Your task to perform on an android device: Open Google Chrome Image 0: 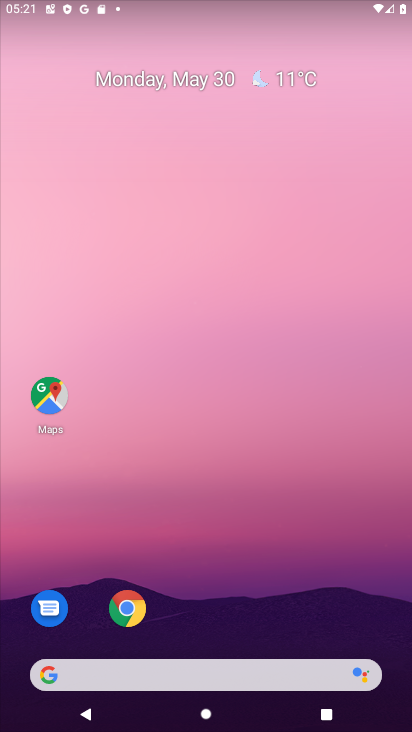
Step 0: drag from (237, 640) to (235, 319)
Your task to perform on an android device: Open Google Chrome Image 1: 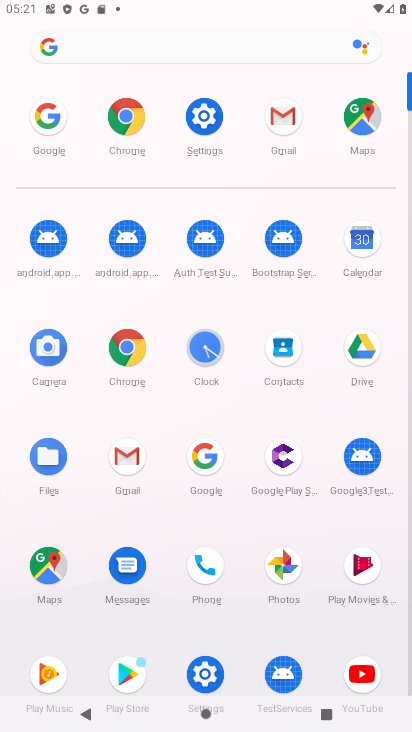
Step 1: click (126, 357)
Your task to perform on an android device: Open Google Chrome Image 2: 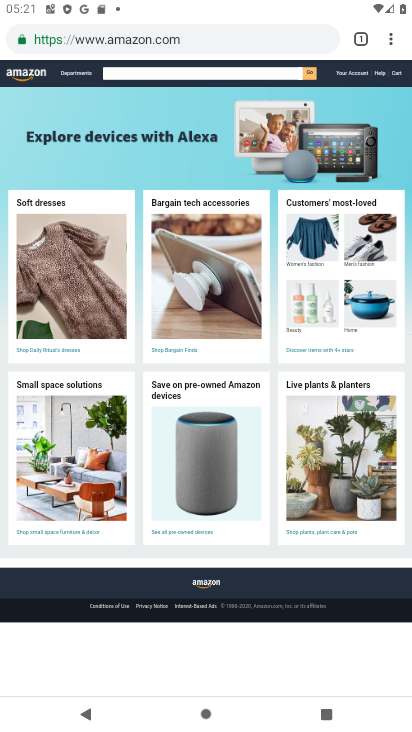
Step 2: task complete